Your task to perform on an android device: change the clock style Image 0: 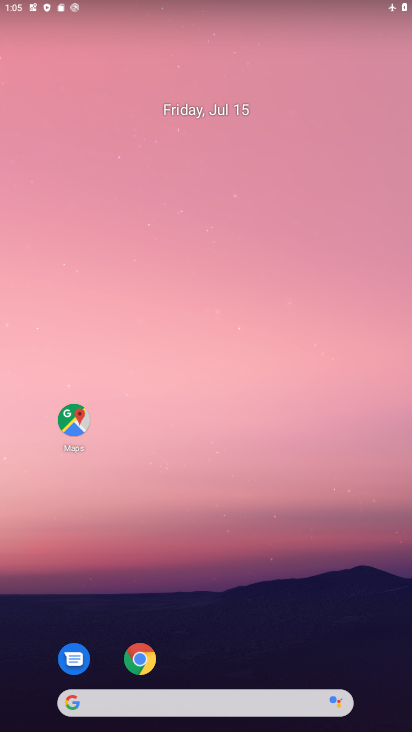
Step 0: drag from (223, 667) to (150, 173)
Your task to perform on an android device: change the clock style Image 1: 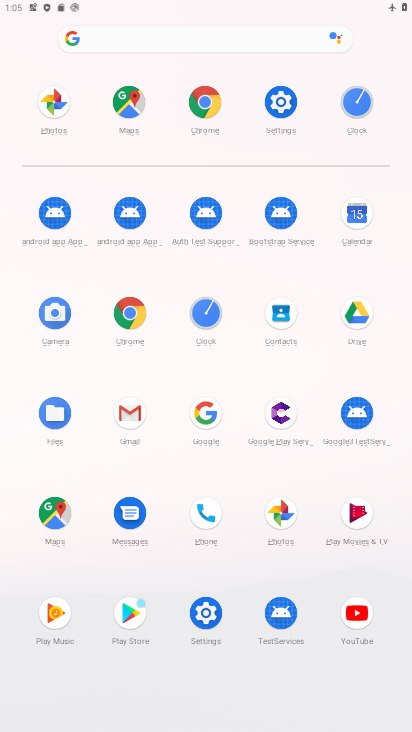
Step 1: click (335, 109)
Your task to perform on an android device: change the clock style Image 2: 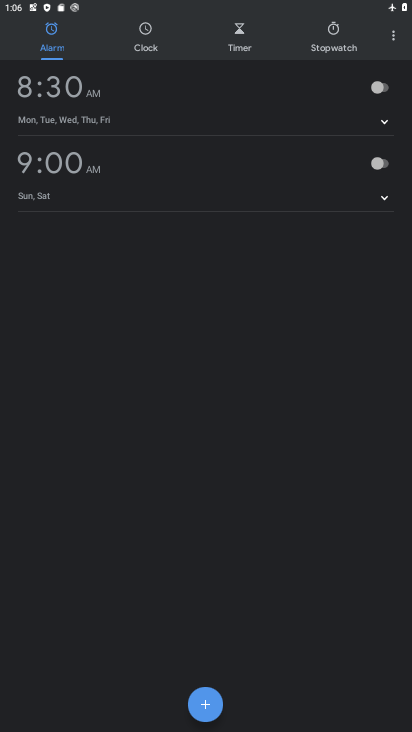
Step 2: click (384, 31)
Your task to perform on an android device: change the clock style Image 3: 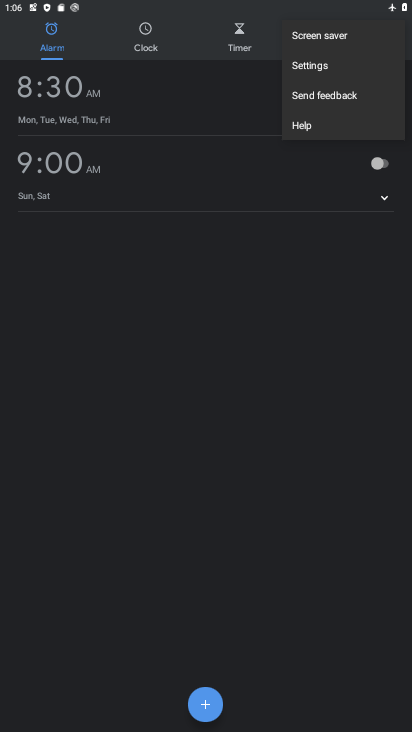
Step 3: click (306, 66)
Your task to perform on an android device: change the clock style Image 4: 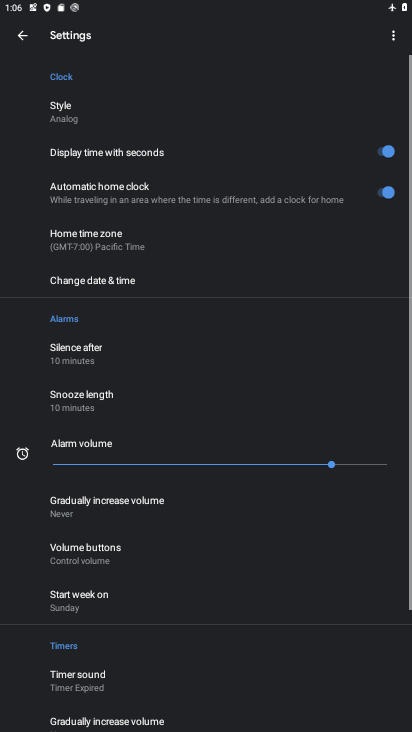
Step 4: click (89, 107)
Your task to perform on an android device: change the clock style Image 5: 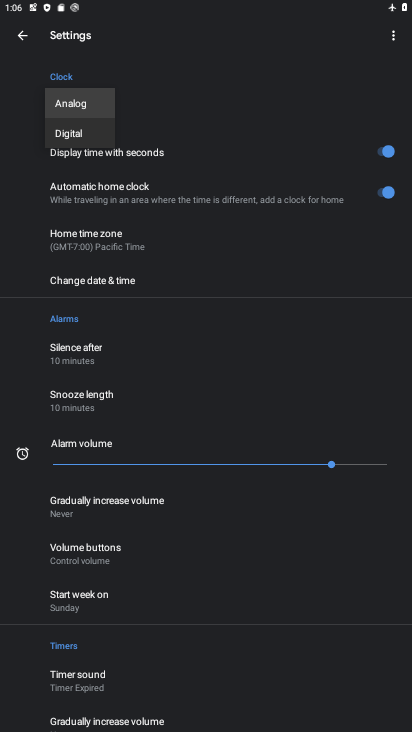
Step 5: click (79, 129)
Your task to perform on an android device: change the clock style Image 6: 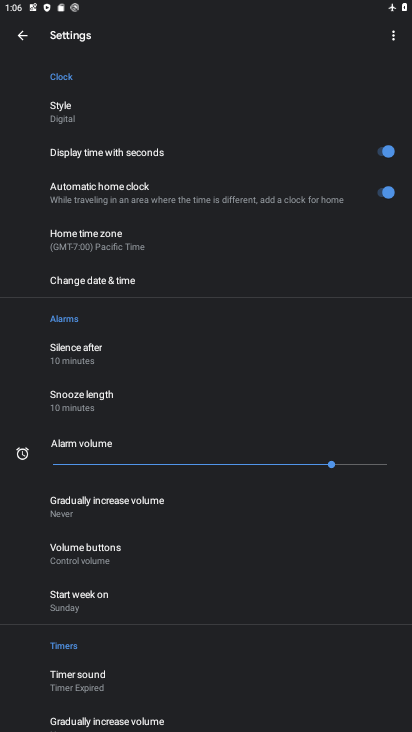
Step 6: task complete